Your task to perform on an android device: turn smart compose on in the gmail app Image 0: 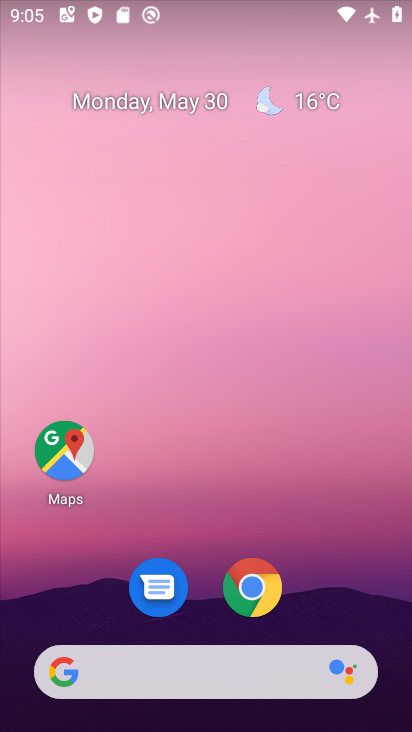
Step 0: drag from (203, 681) to (312, 104)
Your task to perform on an android device: turn smart compose on in the gmail app Image 1: 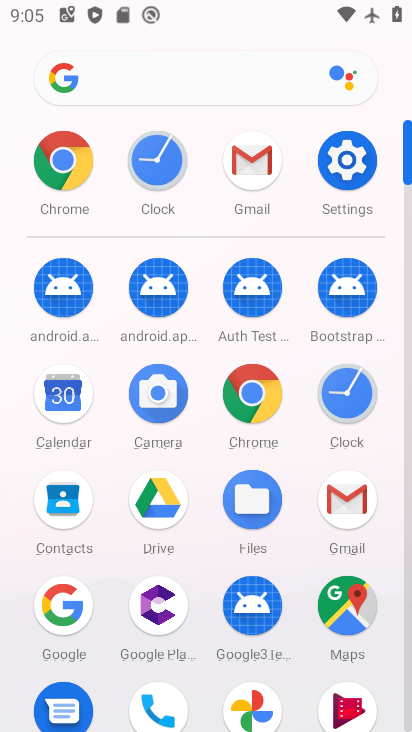
Step 1: click (261, 162)
Your task to perform on an android device: turn smart compose on in the gmail app Image 2: 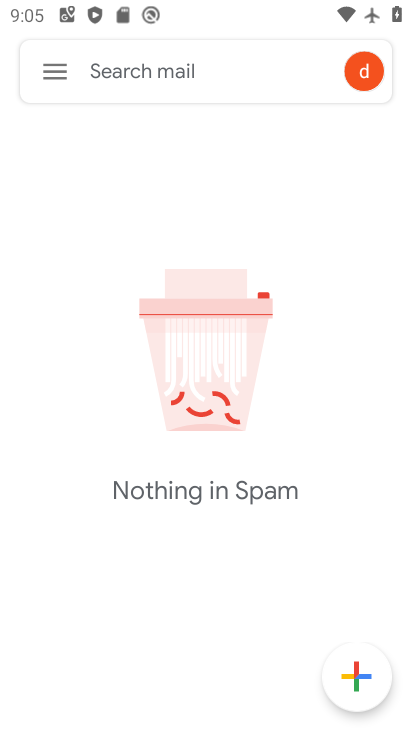
Step 2: click (56, 71)
Your task to perform on an android device: turn smart compose on in the gmail app Image 3: 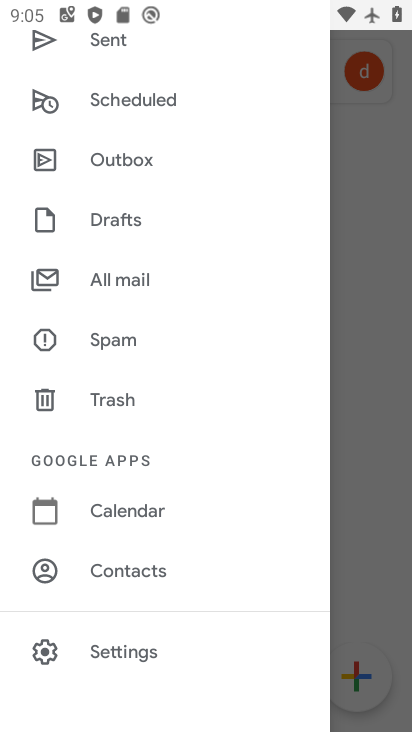
Step 3: click (132, 655)
Your task to perform on an android device: turn smart compose on in the gmail app Image 4: 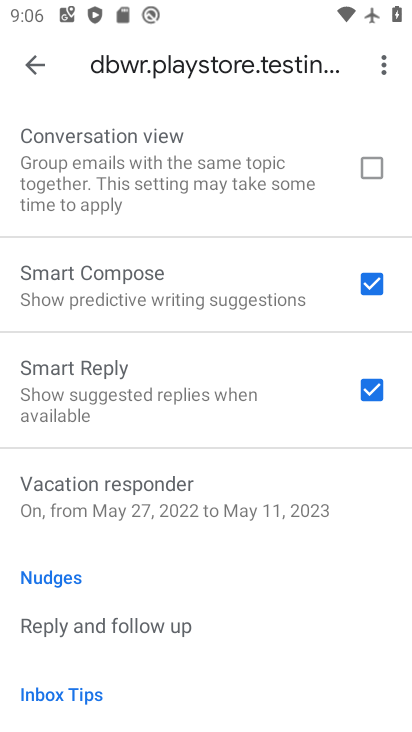
Step 4: task complete